Your task to perform on an android device: What's the latest video from Gameranx? Image 0: 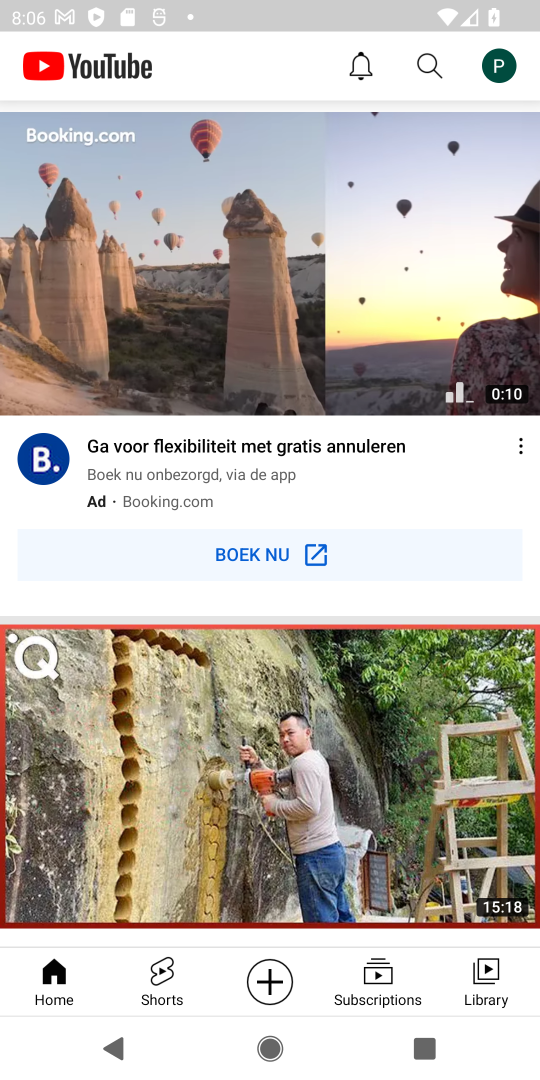
Step 0: press home button
Your task to perform on an android device: What's the latest video from Gameranx? Image 1: 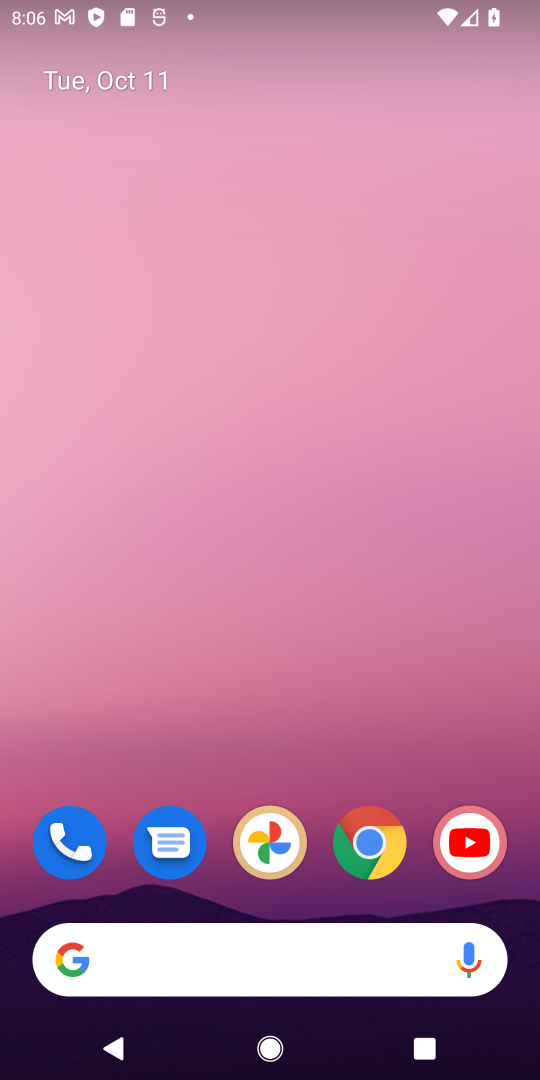
Step 1: click (370, 846)
Your task to perform on an android device: What's the latest video from Gameranx? Image 2: 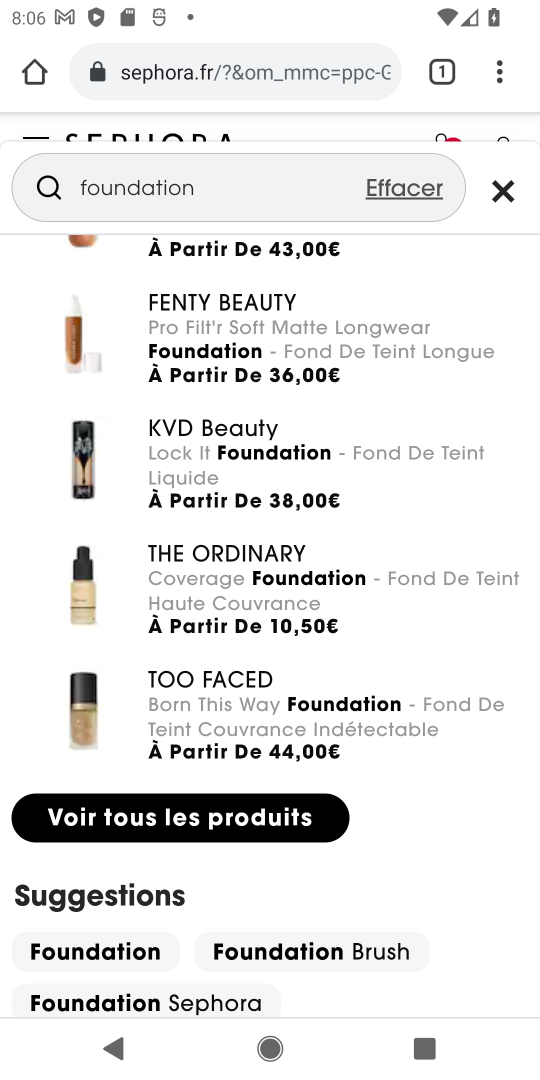
Step 2: click (239, 66)
Your task to perform on an android device: What's the latest video from Gameranx? Image 3: 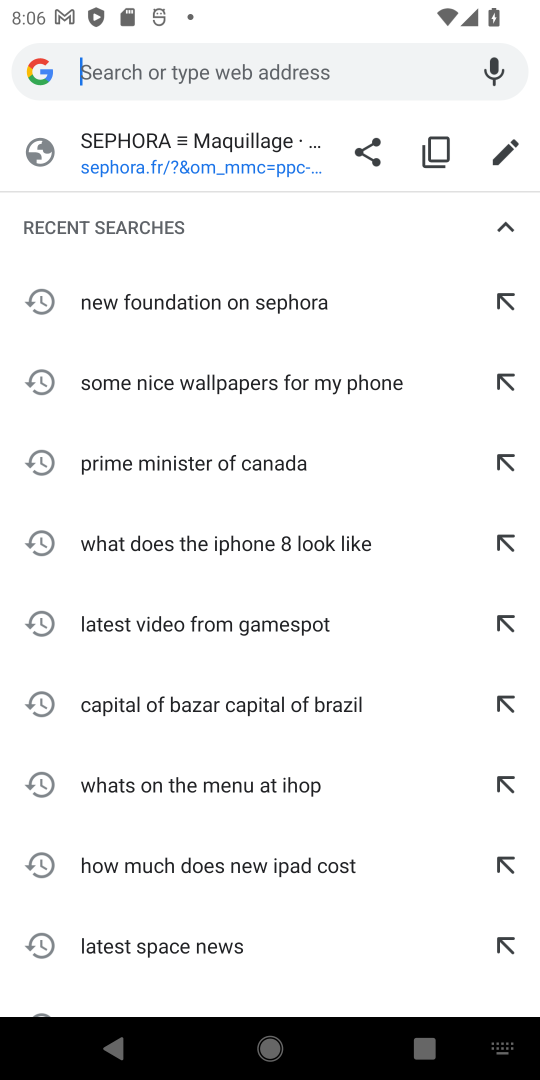
Step 3: type "latest video from gameranx"
Your task to perform on an android device: What's the latest video from Gameranx? Image 4: 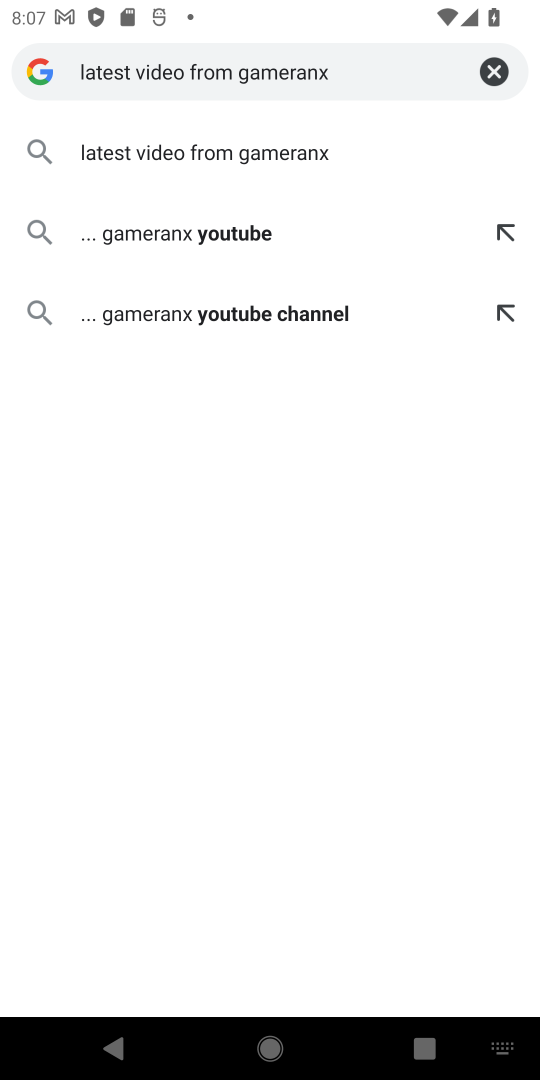
Step 4: click (287, 150)
Your task to perform on an android device: What's the latest video from Gameranx? Image 5: 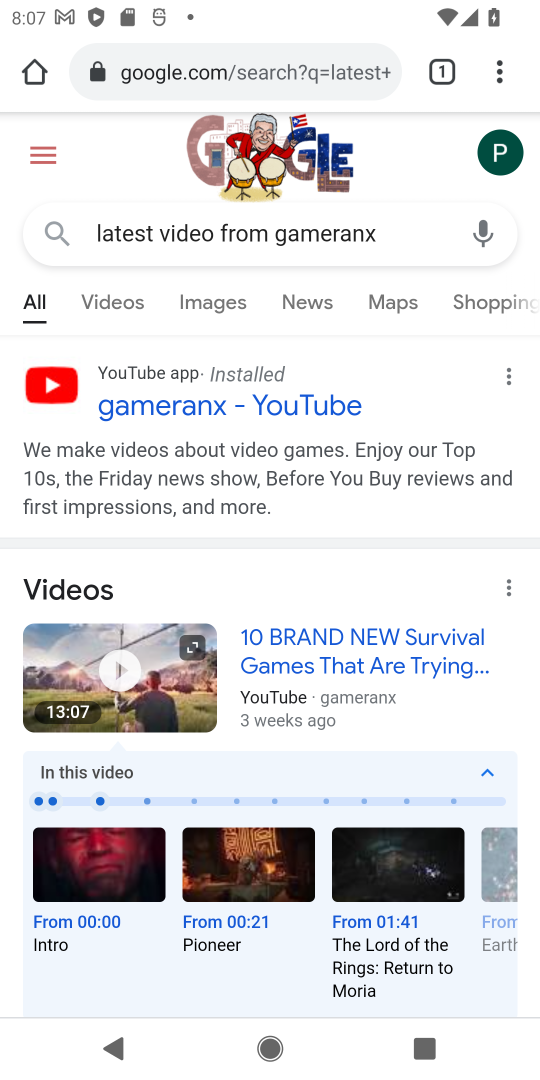
Step 5: drag from (295, 788) to (403, 268)
Your task to perform on an android device: What's the latest video from Gameranx? Image 6: 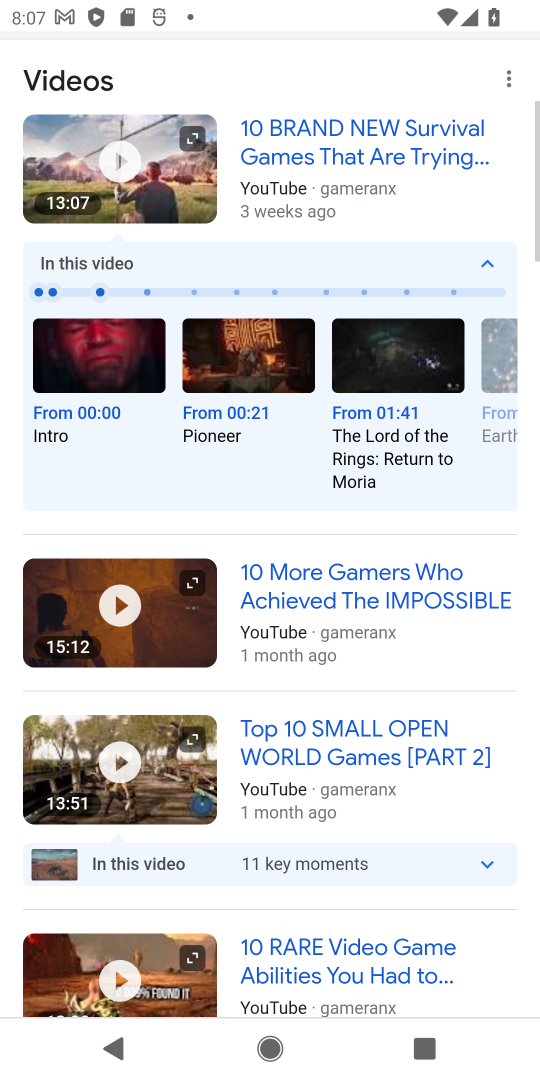
Step 6: drag from (345, 839) to (438, 368)
Your task to perform on an android device: What's the latest video from Gameranx? Image 7: 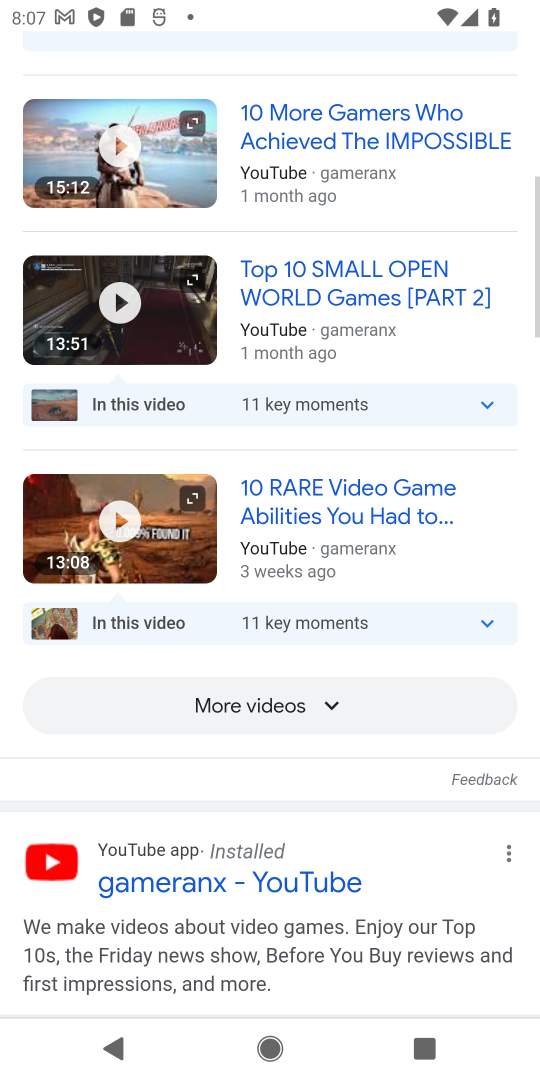
Step 7: drag from (308, 826) to (313, 464)
Your task to perform on an android device: What's the latest video from Gameranx? Image 8: 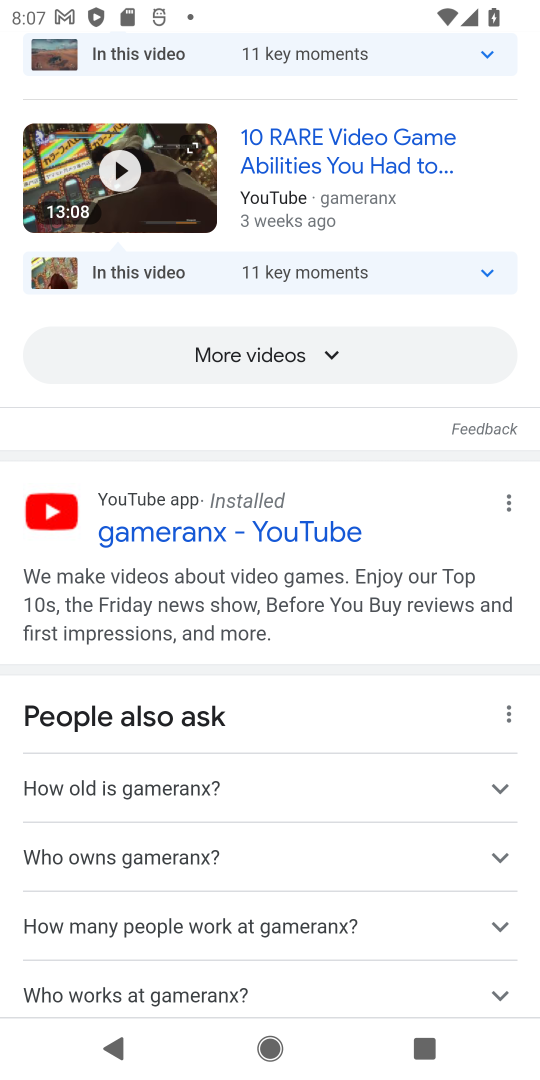
Step 8: click (140, 534)
Your task to perform on an android device: What's the latest video from Gameranx? Image 9: 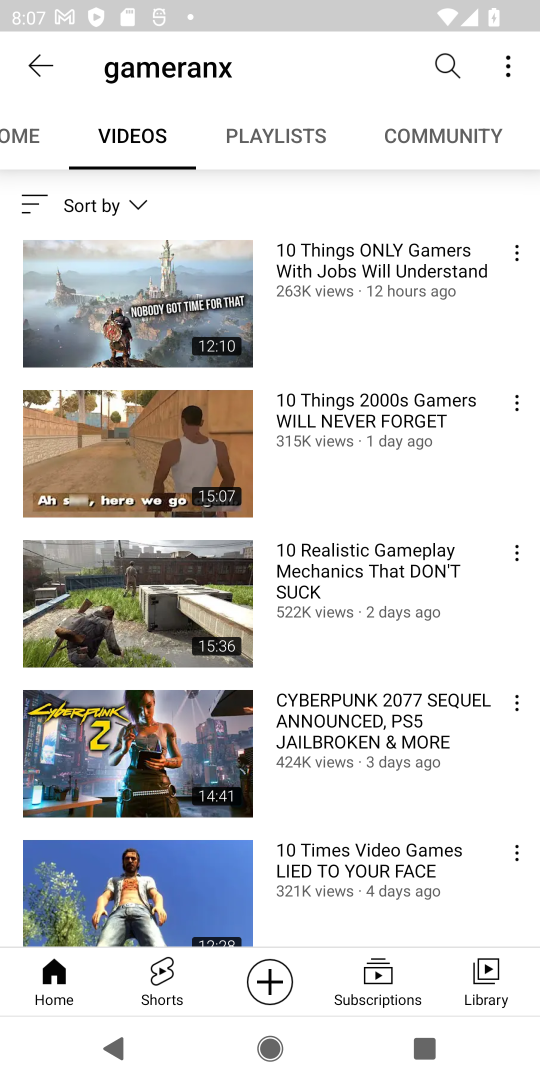
Step 9: task complete